Your task to perform on an android device: set the stopwatch Image 0: 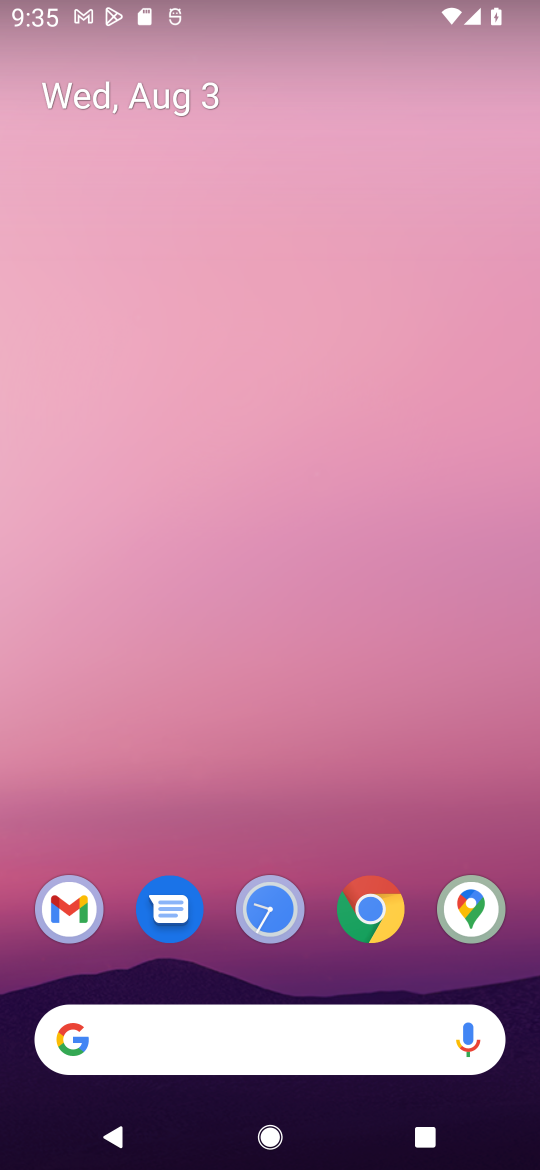
Step 0: drag from (427, 853) to (412, 294)
Your task to perform on an android device: set the stopwatch Image 1: 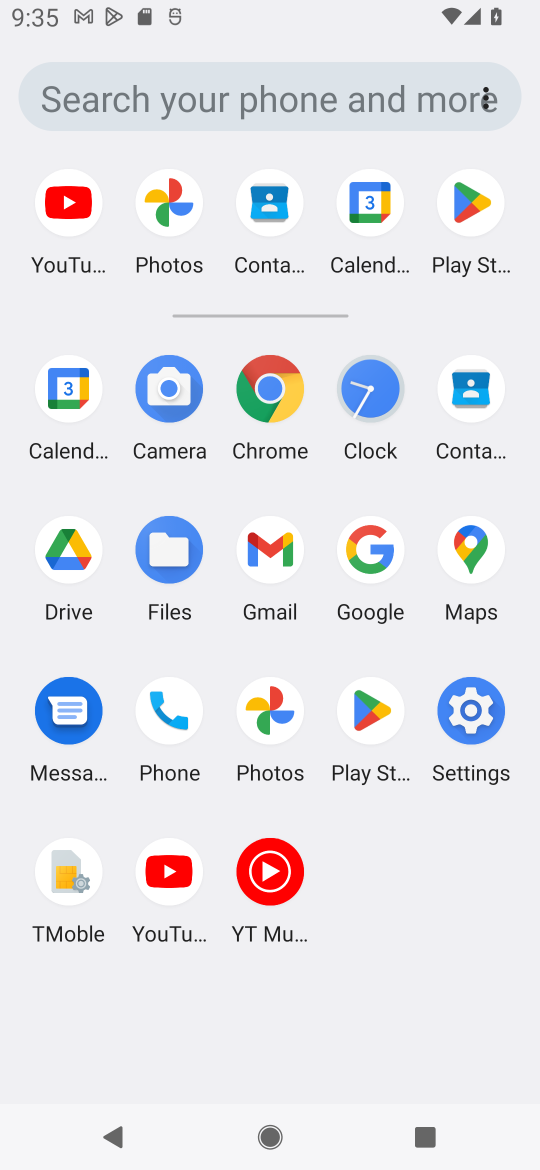
Step 1: click (371, 383)
Your task to perform on an android device: set the stopwatch Image 2: 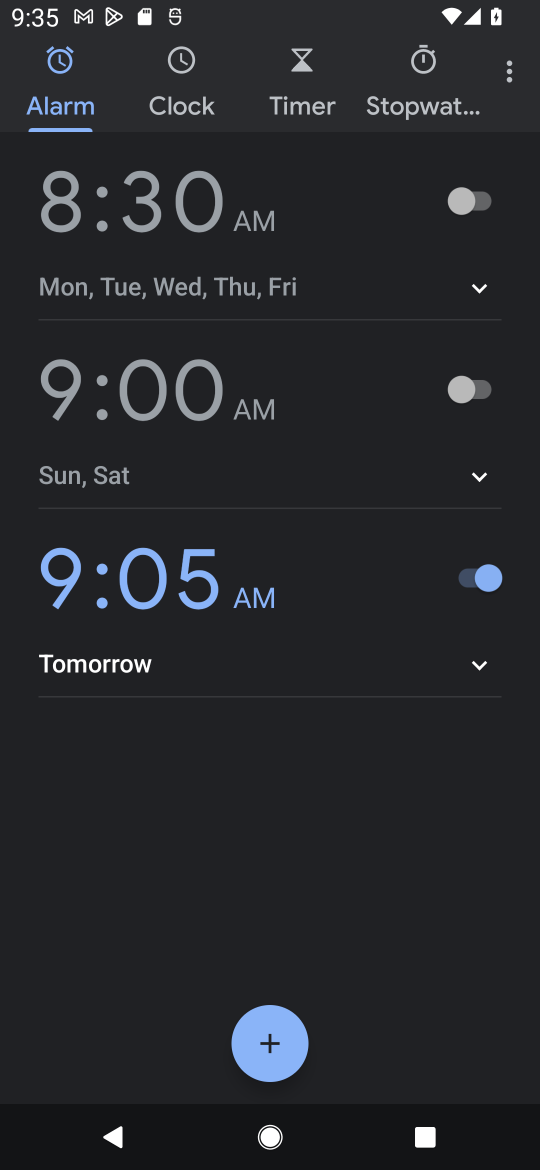
Step 2: click (431, 72)
Your task to perform on an android device: set the stopwatch Image 3: 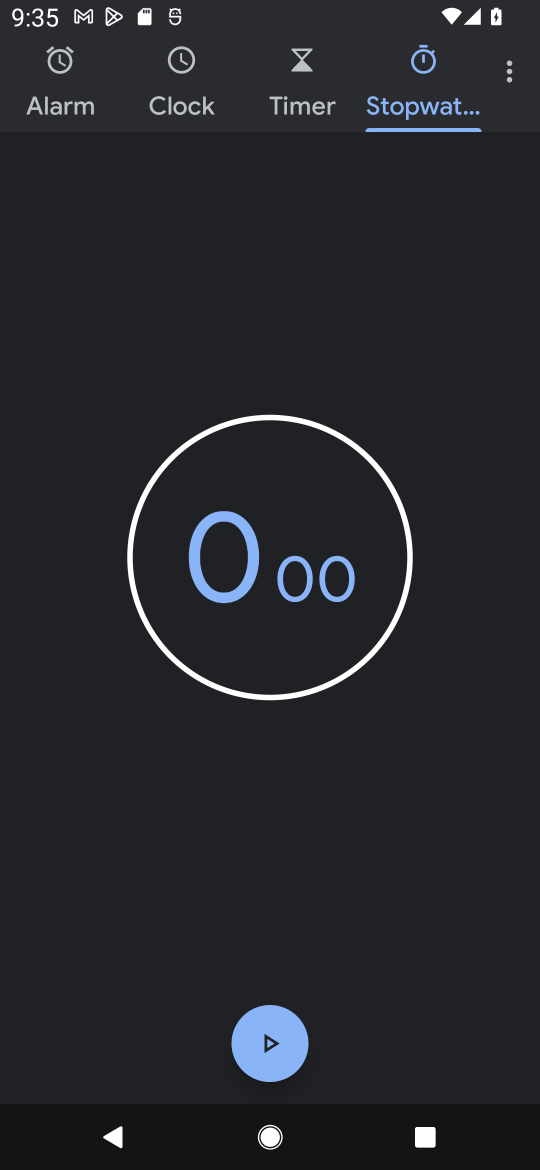
Step 3: click (282, 1026)
Your task to perform on an android device: set the stopwatch Image 4: 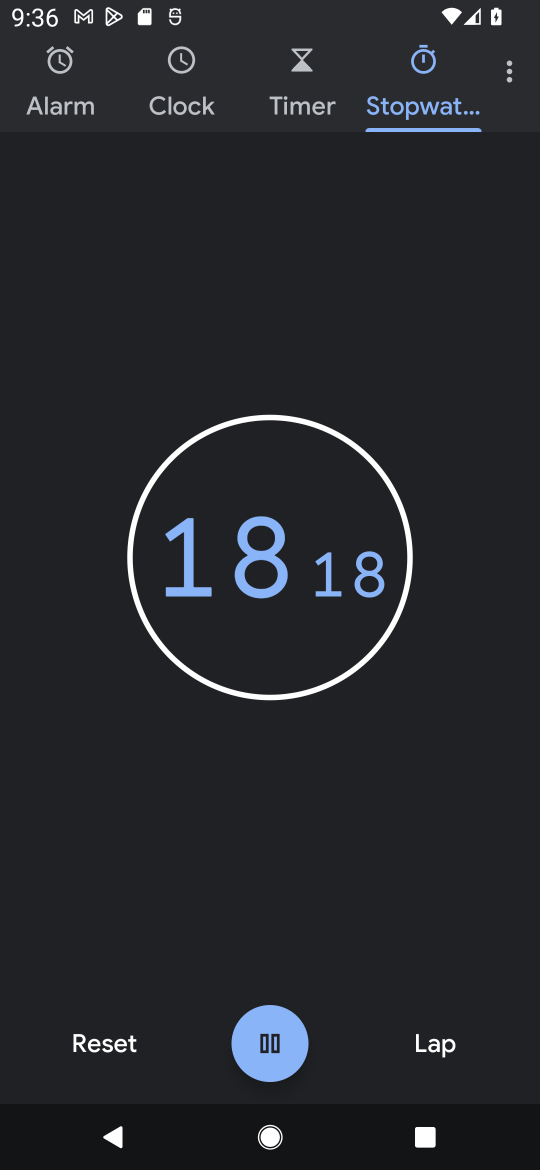
Step 4: task complete